Your task to perform on an android device: see tabs open on other devices in the chrome app Image 0: 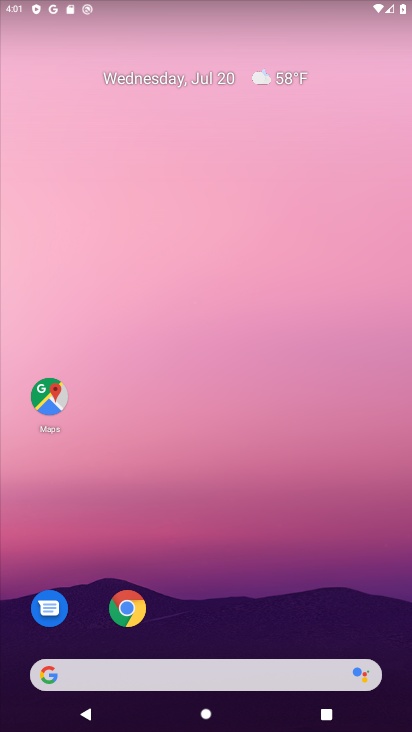
Step 0: click (133, 607)
Your task to perform on an android device: see tabs open on other devices in the chrome app Image 1: 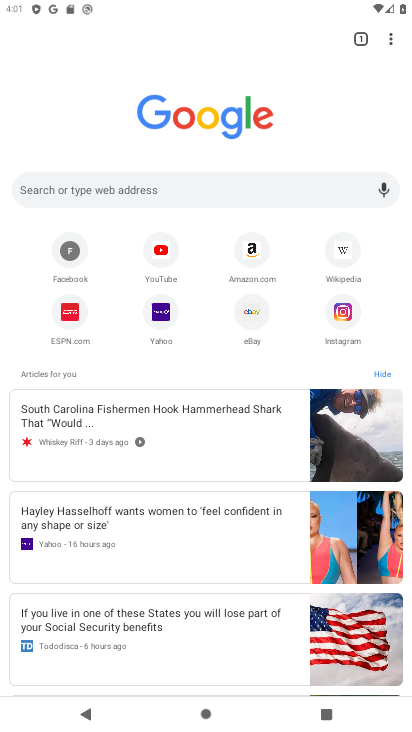
Step 1: click (390, 40)
Your task to perform on an android device: see tabs open on other devices in the chrome app Image 2: 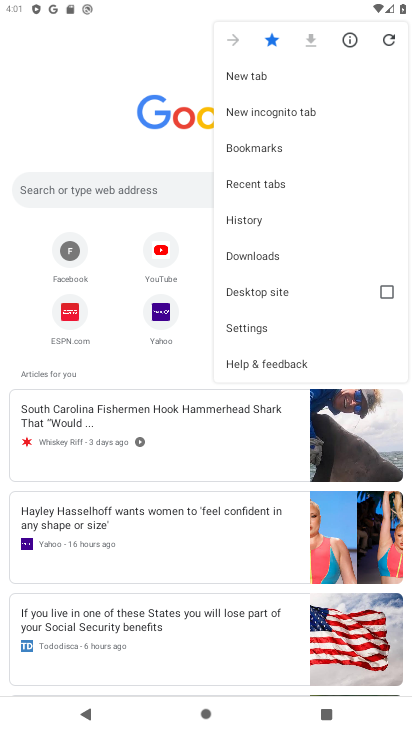
Step 2: click (260, 181)
Your task to perform on an android device: see tabs open on other devices in the chrome app Image 3: 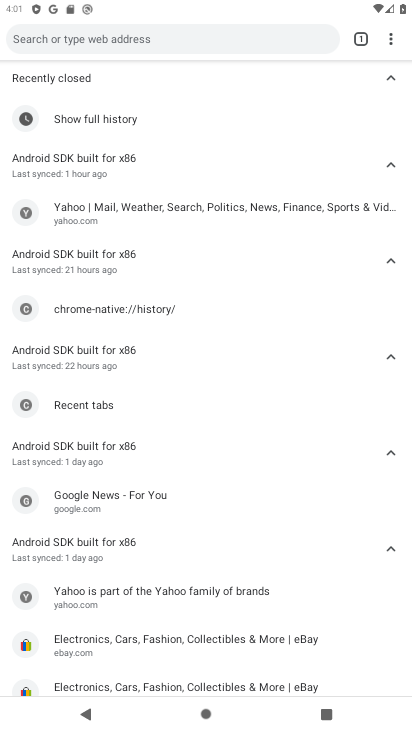
Step 3: task complete